Your task to perform on an android device: Open Amazon Image 0: 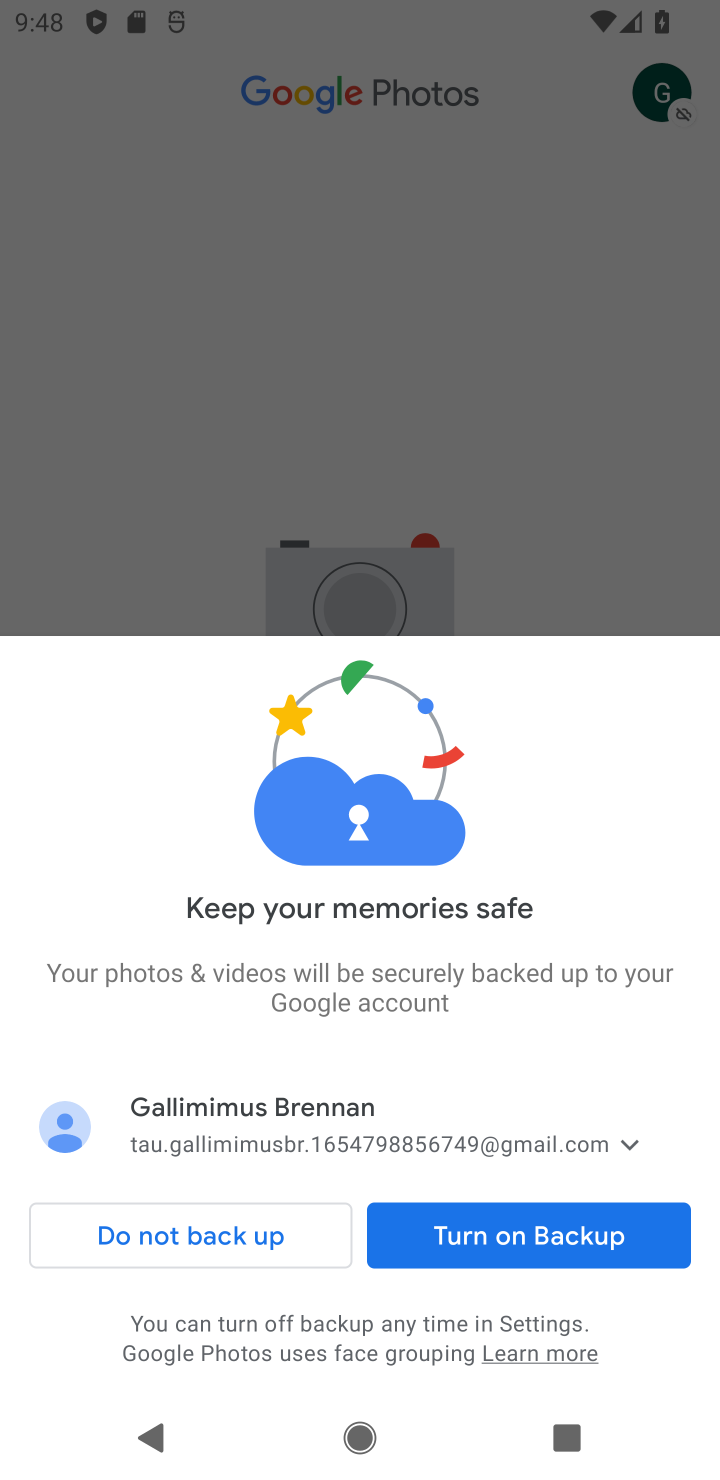
Step 0: click (256, 1237)
Your task to perform on an android device: Open Amazon Image 1: 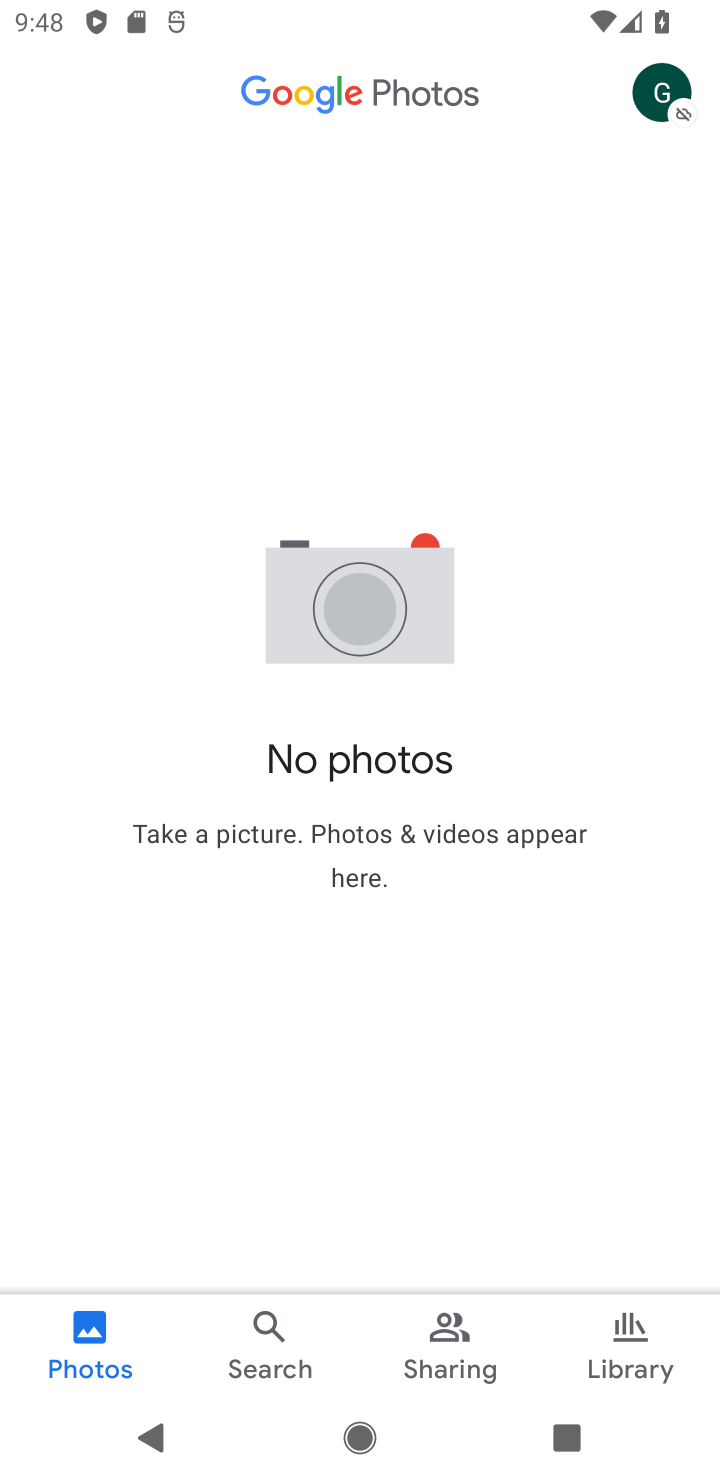
Step 1: press home button
Your task to perform on an android device: Open Amazon Image 2: 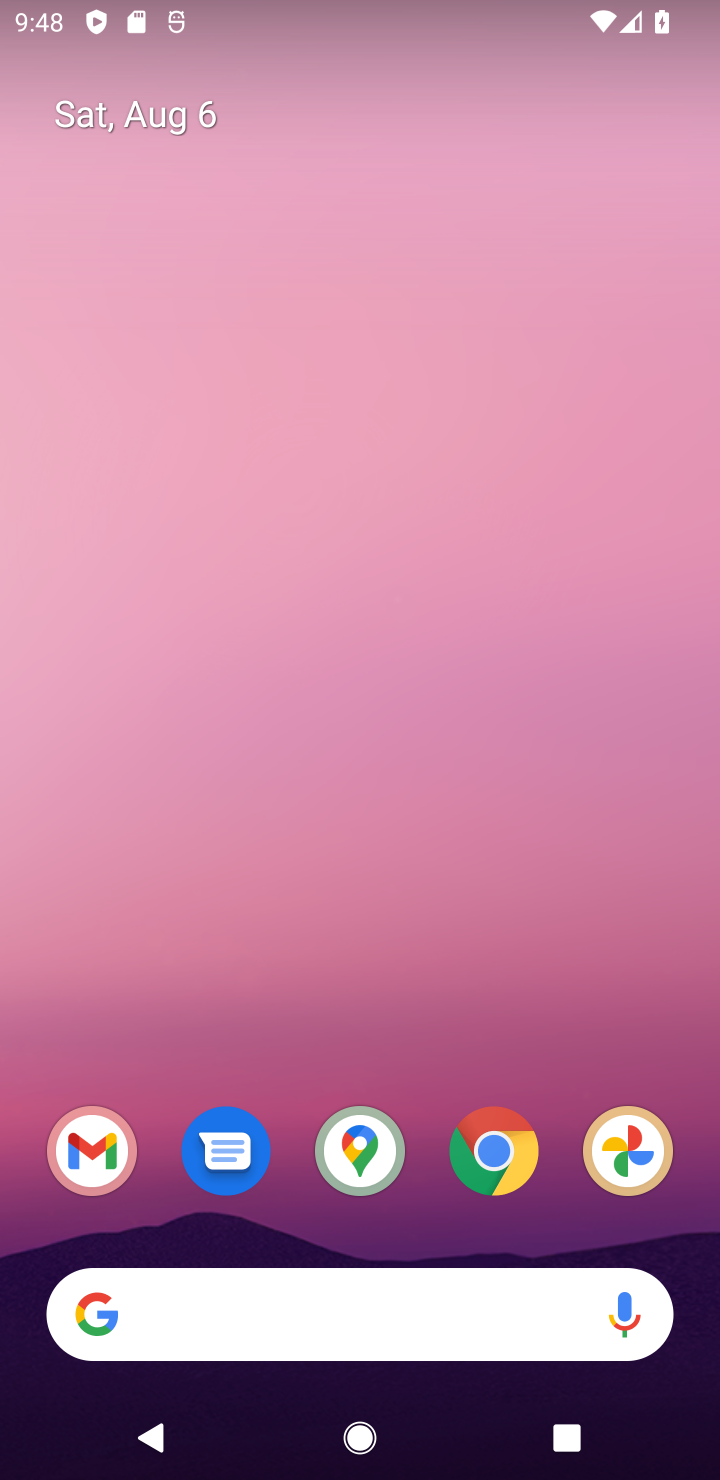
Step 2: drag from (492, 1068) to (300, 305)
Your task to perform on an android device: Open Amazon Image 3: 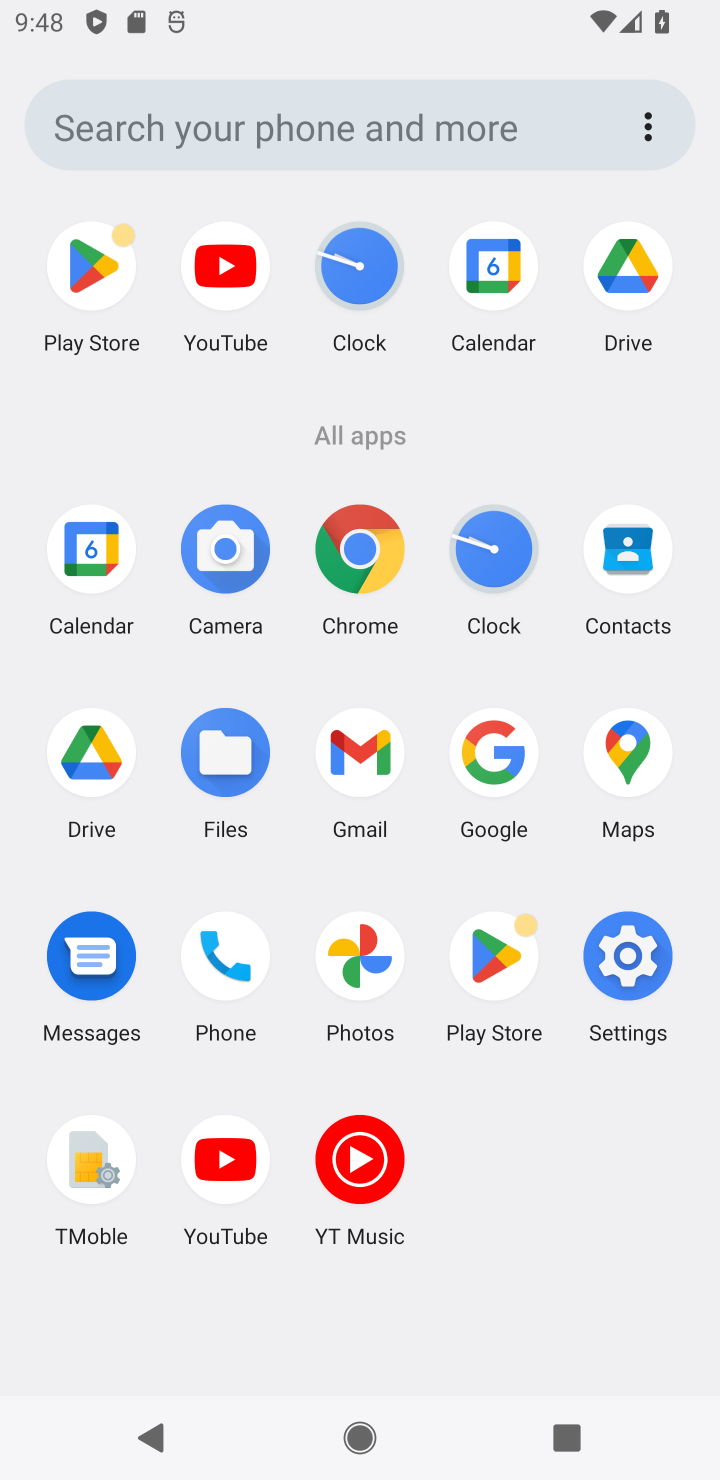
Step 3: click (386, 558)
Your task to perform on an android device: Open Amazon Image 4: 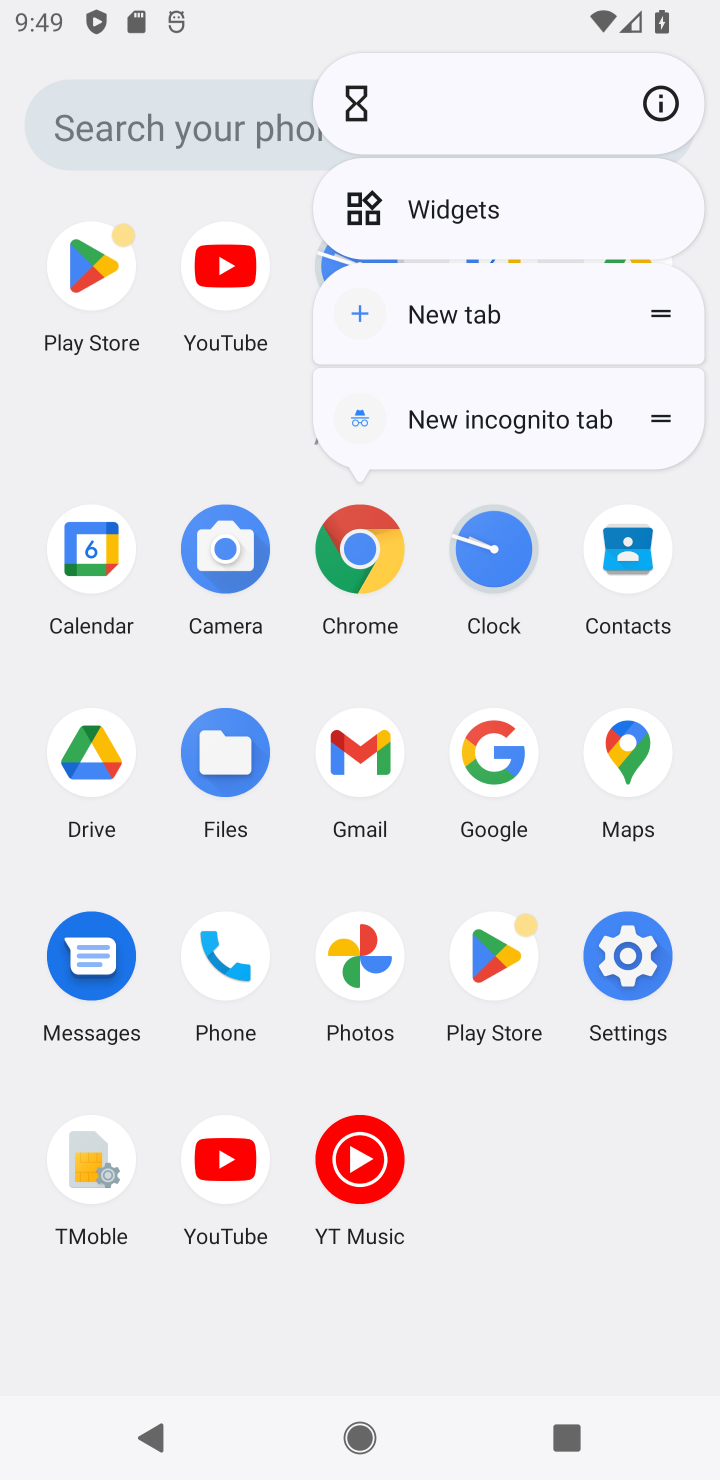
Step 4: click (449, 311)
Your task to perform on an android device: Open Amazon Image 5: 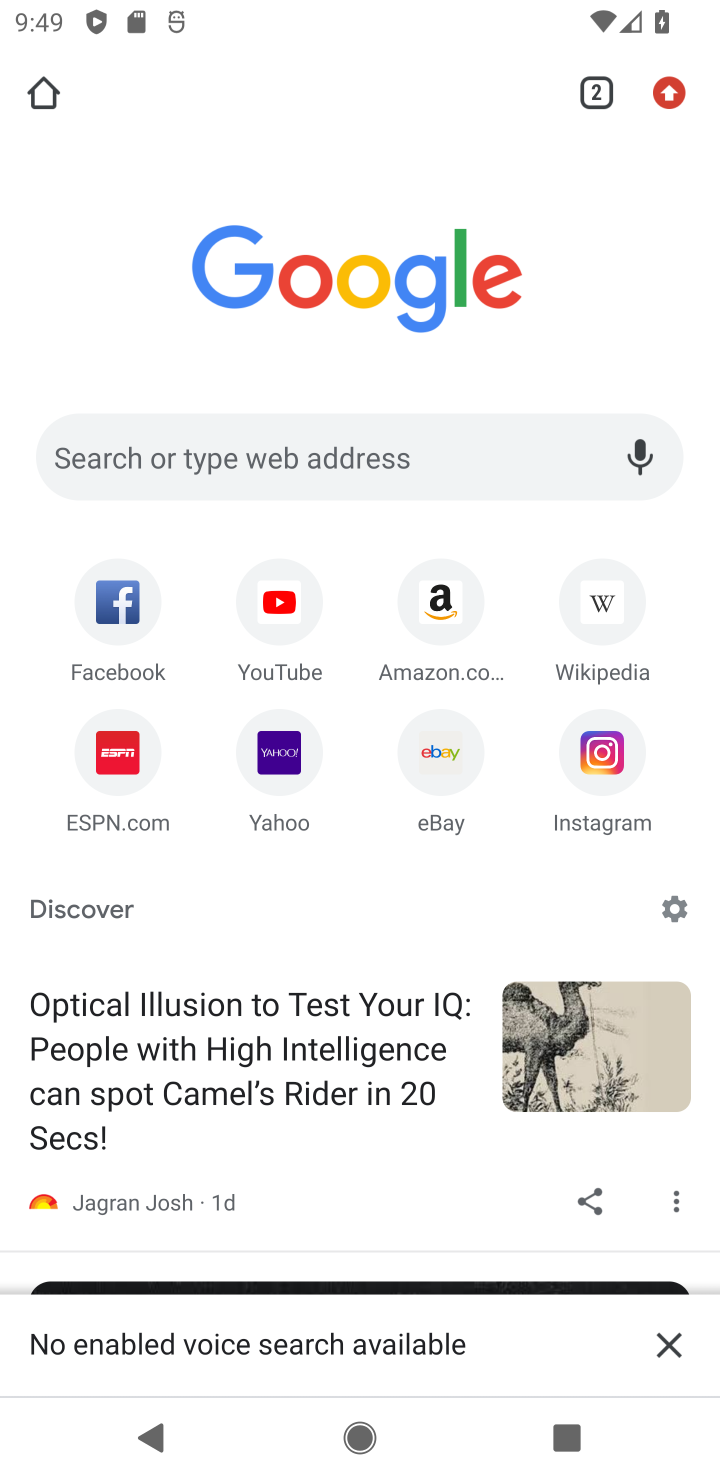
Step 5: click (438, 623)
Your task to perform on an android device: Open Amazon Image 6: 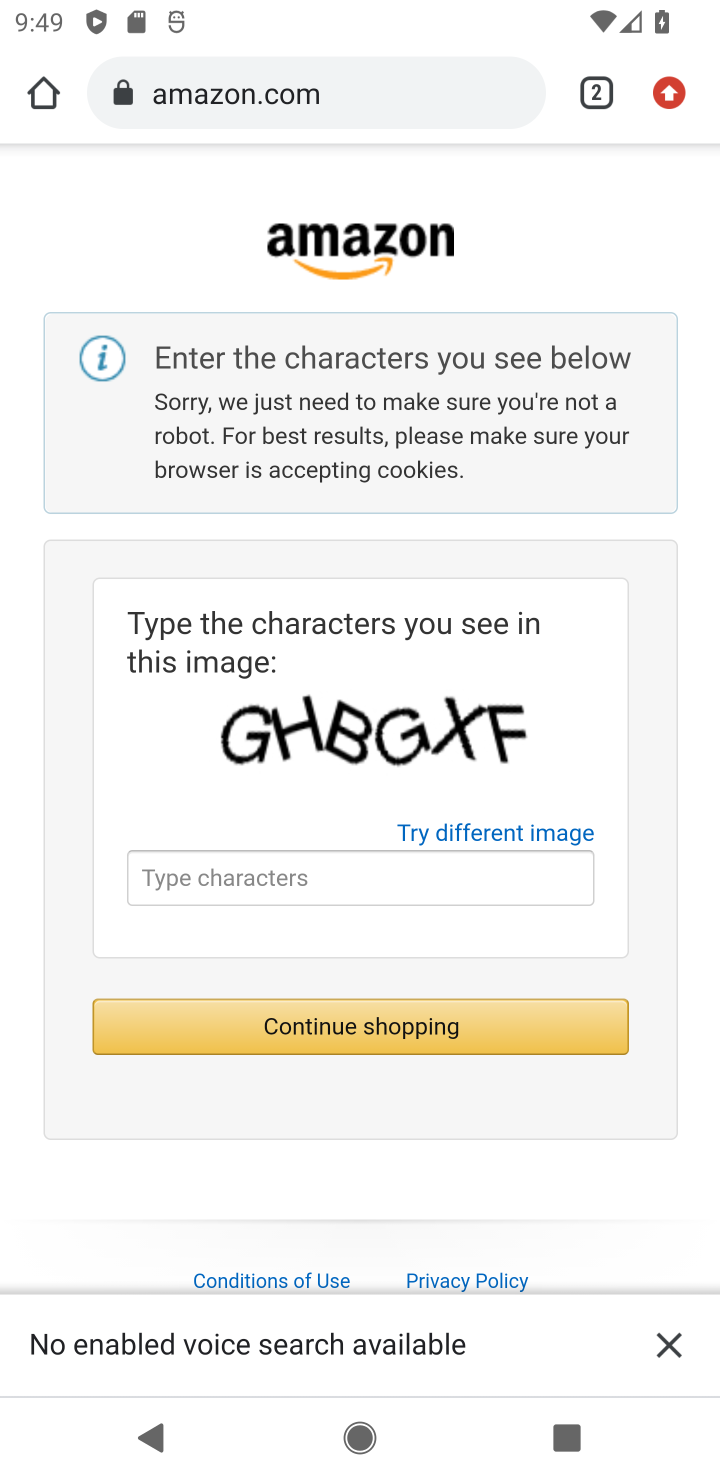
Step 6: task complete